Your task to perform on an android device: Go to Maps Image 0: 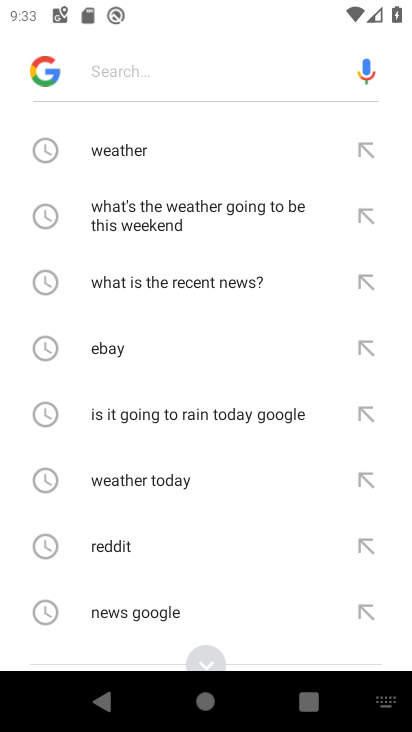
Step 0: press back button
Your task to perform on an android device: Go to Maps Image 1: 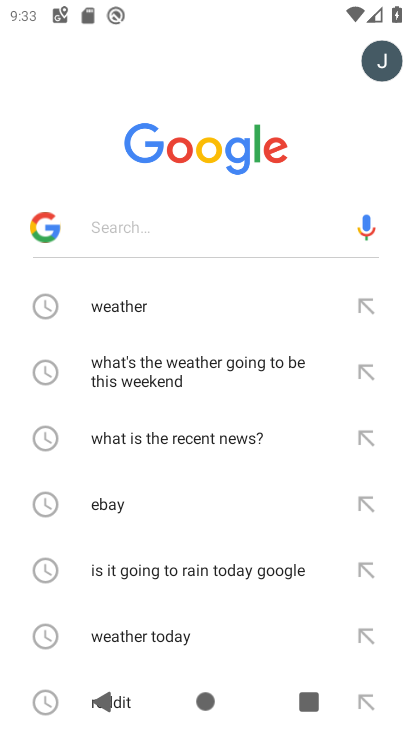
Step 1: press back button
Your task to perform on an android device: Go to Maps Image 2: 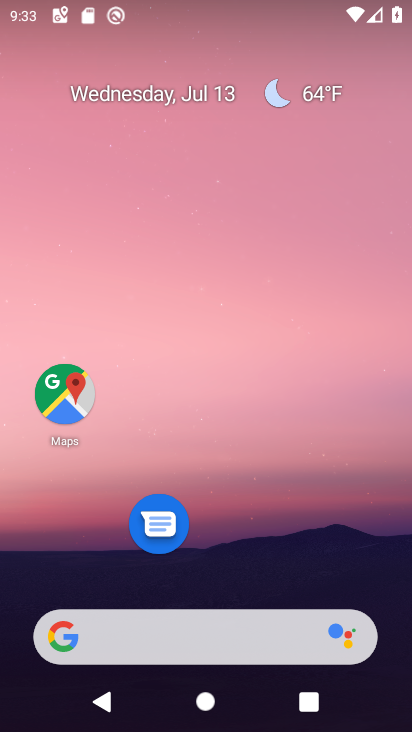
Step 2: drag from (225, 581) to (251, 126)
Your task to perform on an android device: Go to Maps Image 3: 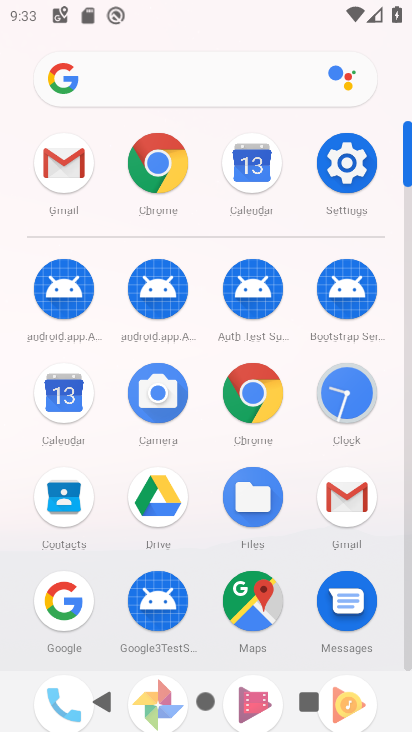
Step 3: click (268, 600)
Your task to perform on an android device: Go to Maps Image 4: 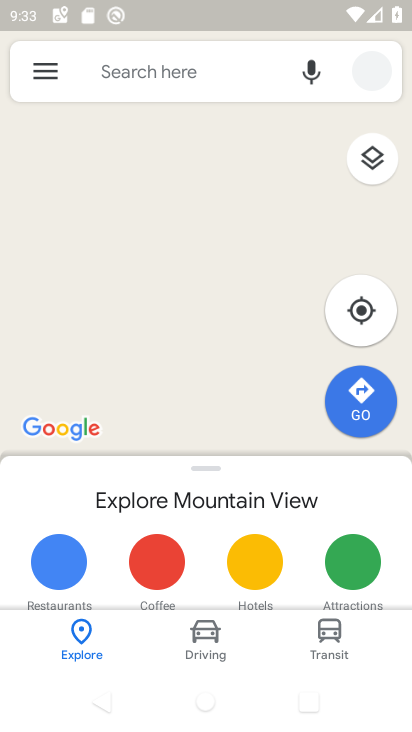
Step 4: task complete